Your task to perform on an android device: Clear the cart on ebay.com. Search for "sony triple a" on ebay.com, select the first entry, add it to the cart, then select checkout. Image 0: 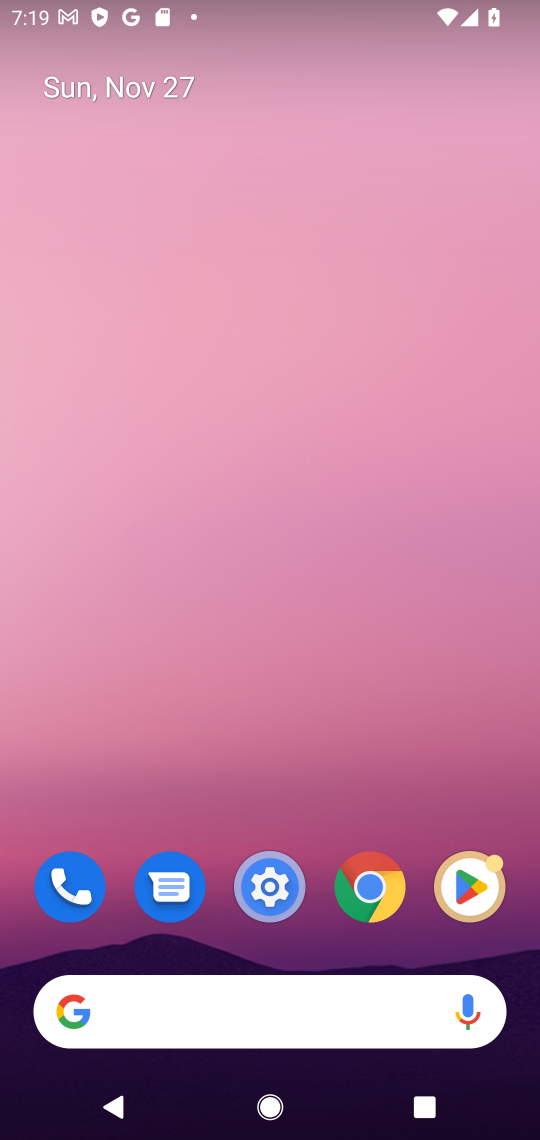
Step 0: click (277, 1038)
Your task to perform on an android device: Clear the cart on ebay.com. Search for "sony triple a" on ebay.com, select the first entry, add it to the cart, then select checkout. Image 1: 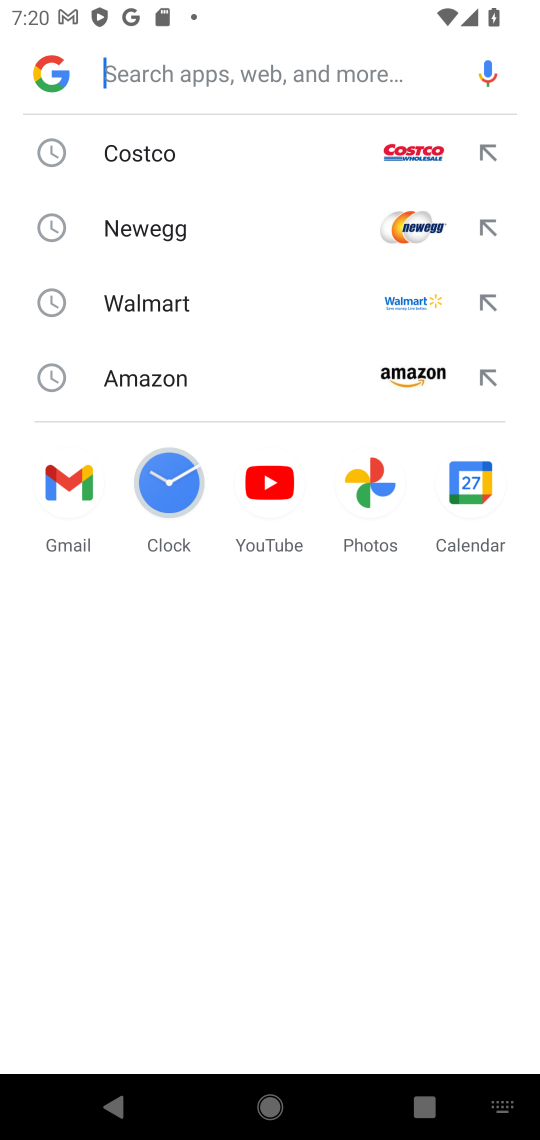
Step 1: type "ebay.com"
Your task to perform on an android device: Clear the cart on ebay.com. Search for "sony triple a" on ebay.com, select the first entry, add it to the cart, then select checkout. Image 2: 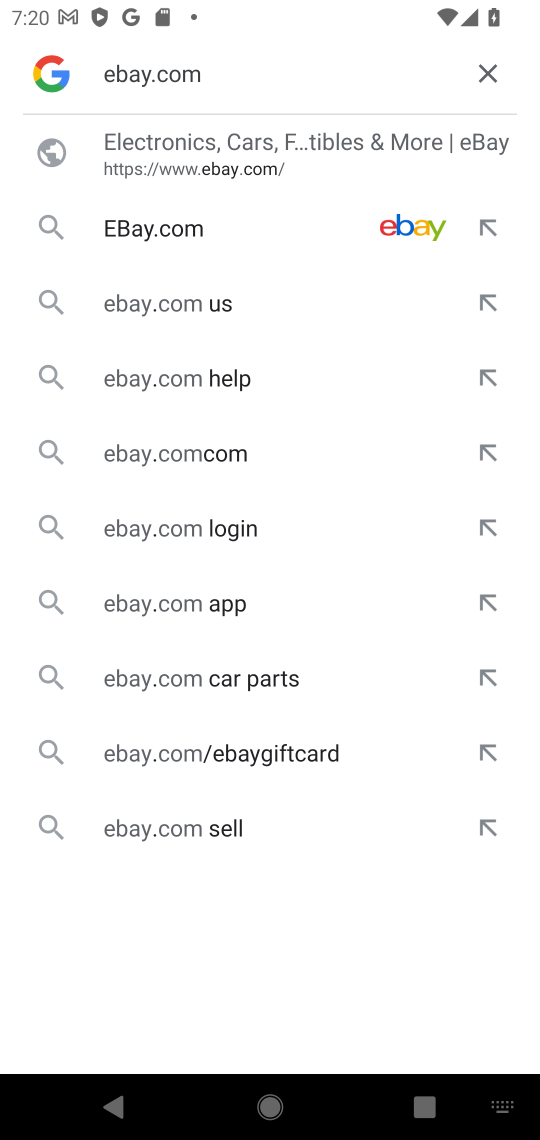
Step 2: click (162, 148)
Your task to perform on an android device: Clear the cart on ebay.com. Search for "sony triple a" on ebay.com, select the first entry, add it to the cart, then select checkout. Image 3: 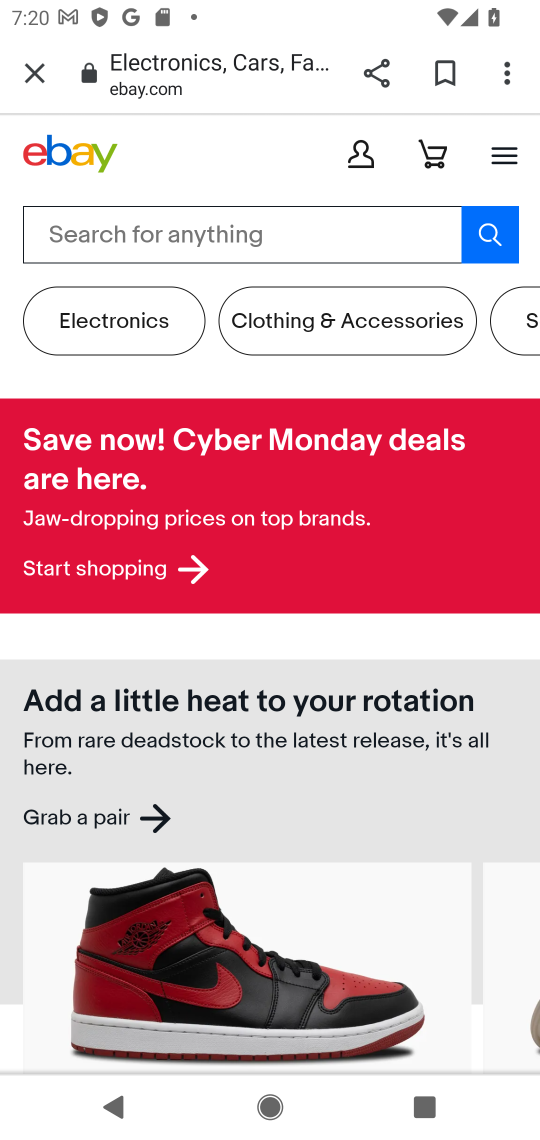
Step 3: click (252, 237)
Your task to perform on an android device: Clear the cart on ebay.com. Search for "sony triple a" on ebay.com, select the first entry, add it to the cart, then select checkout. Image 4: 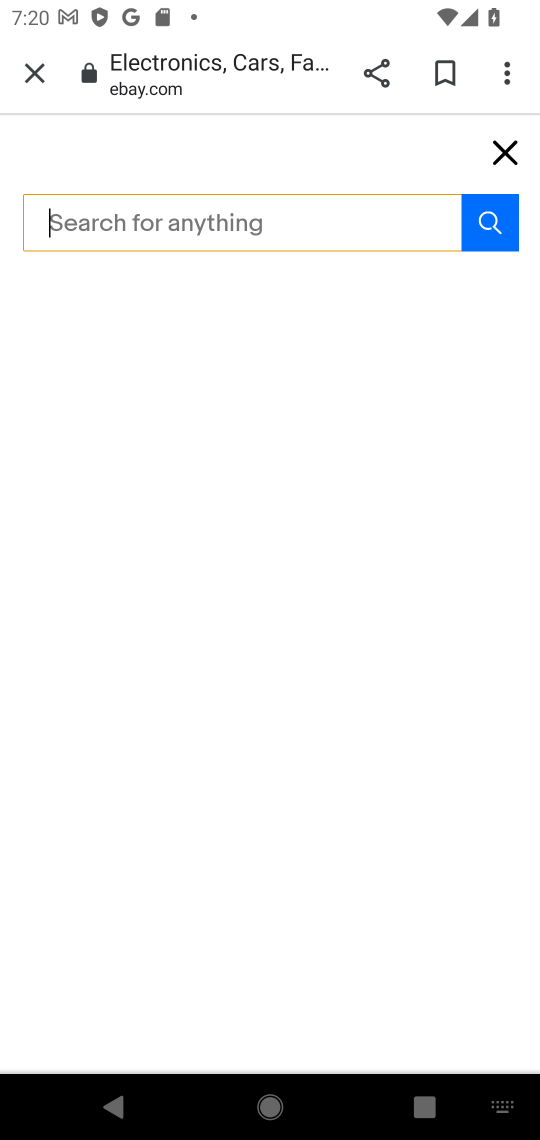
Step 4: type "sony triplee a"
Your task to perform on an android device: Clear the cart on ebay.com. Search for "sony triple a" on ebay.com, select the first entry, add it to the cart, then select checkout. Image 5: 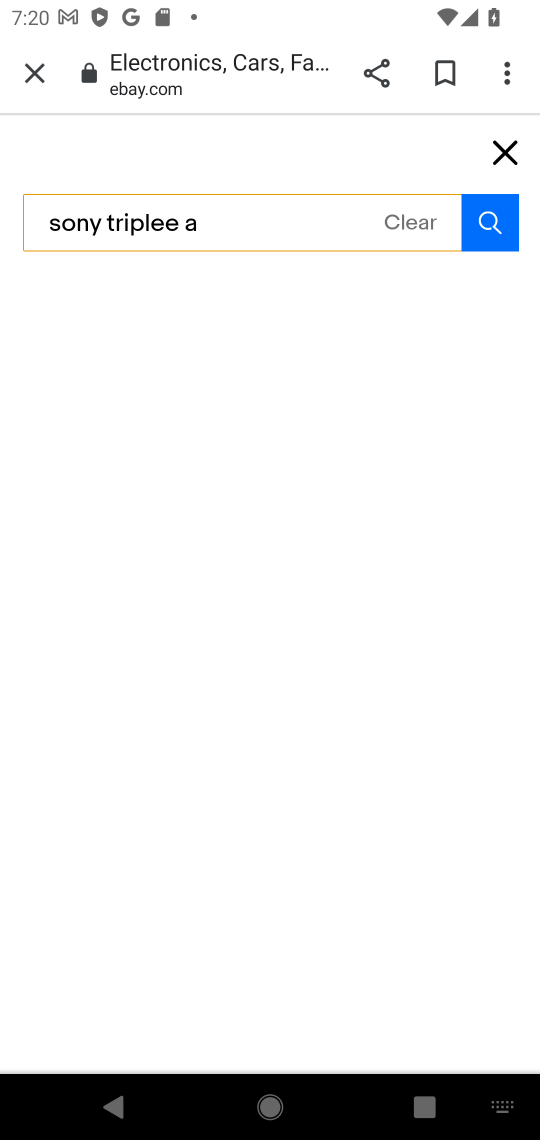
Step 5: click (481, 235)
Your task to perform on an android device: Clear the cart on ebay.com. Search for "sony triple a" on ebay.com, select the first entry, add it to the cart, then select checkout. Image 6: 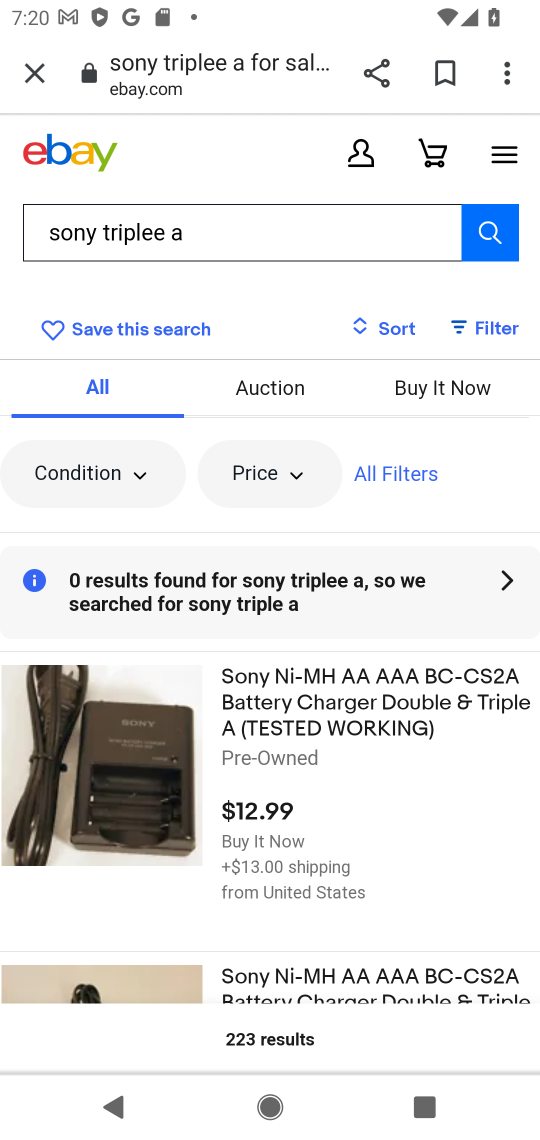
Step 6: drag from (346, 818) to (323, 431)
Your task to perform on an android device: Clear the cart on ebay.com. Search for "sony triple a" on ebay.com, select the first entry, add it to the cart, then select checkout. Image 7: 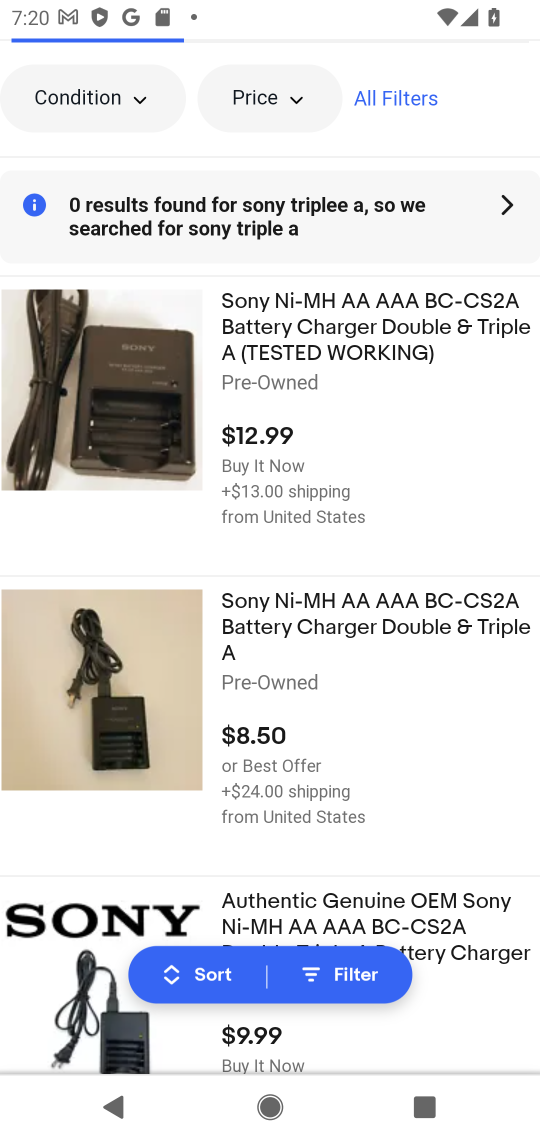
Step 7: click (341, 653)
Your task to perform on an android device: Clear the cart on ebay.com. Search for "sony triple a" on ebay.com, select the first entry, add it to the cart, then select checkout. Image 8: 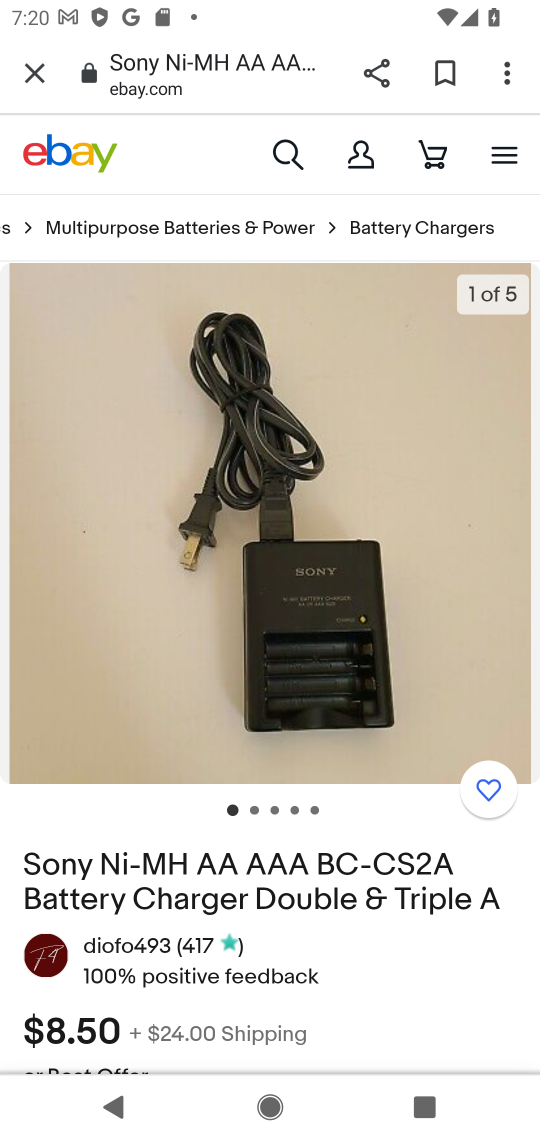
Step 8: drag from (201, 919) to (199, 506)
Your task to perform on an android device: Clear the cart on ebay.com. Search for "sony triple a" on ebay.com, select the first entry, add it to the cart, then select checkout. Image 9: 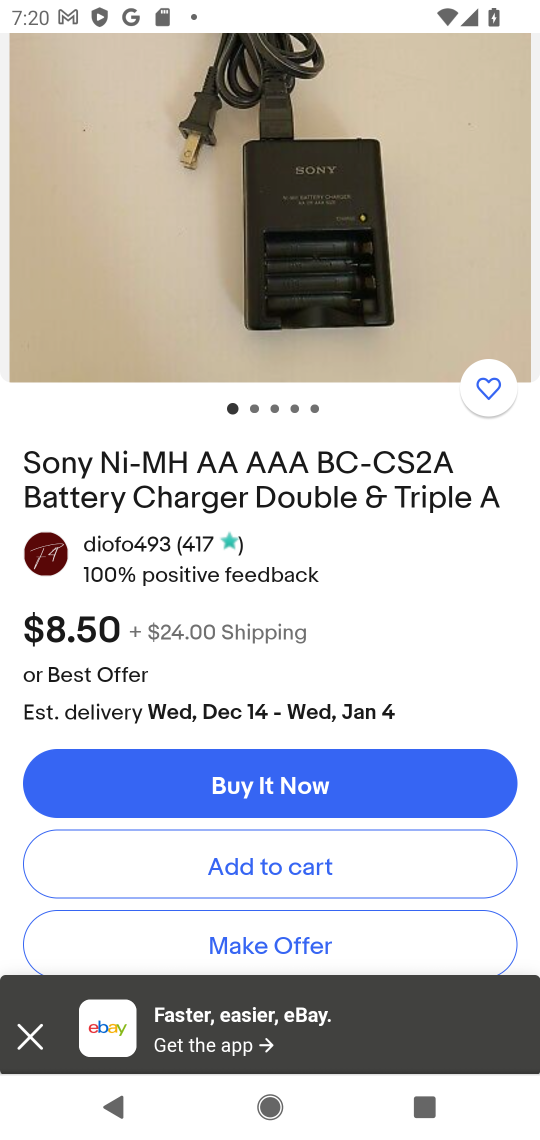
Step 9: click (301, 854)
Your task to perform on an android device: Clear the cart on ebay.com. Search for "sony triple a" on ebay.com, select the first entry, add it to the cart, then select checkout. Image 10: 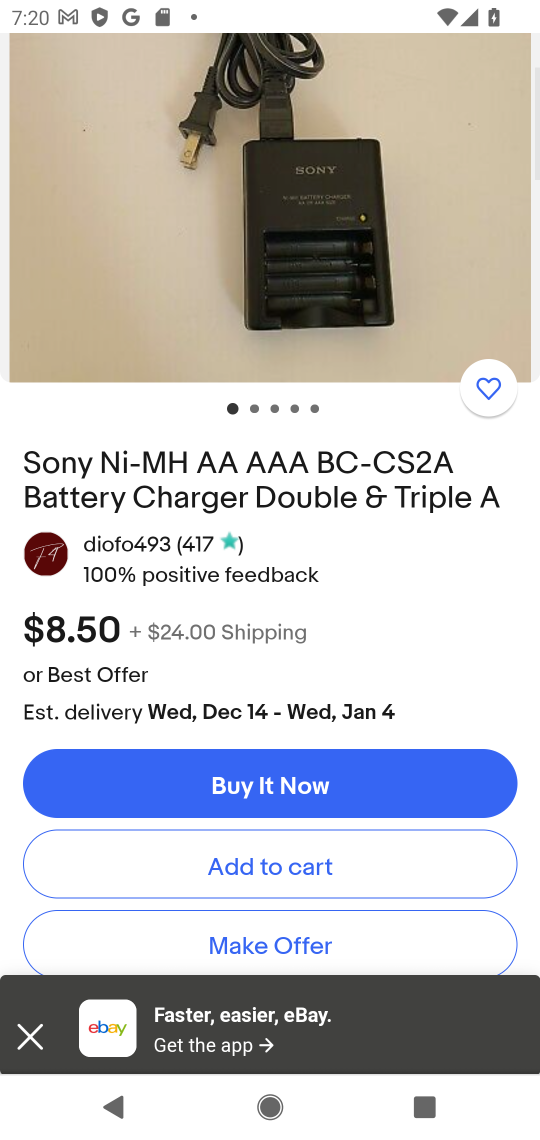
Step 10: task complete